Your task to perform on an android device: open app "Adobe Acrobat Reader: Edit PDF" (install if not already installed) and enter user name: "arthritis@inbox.com" and password: "scythes" Image 0: 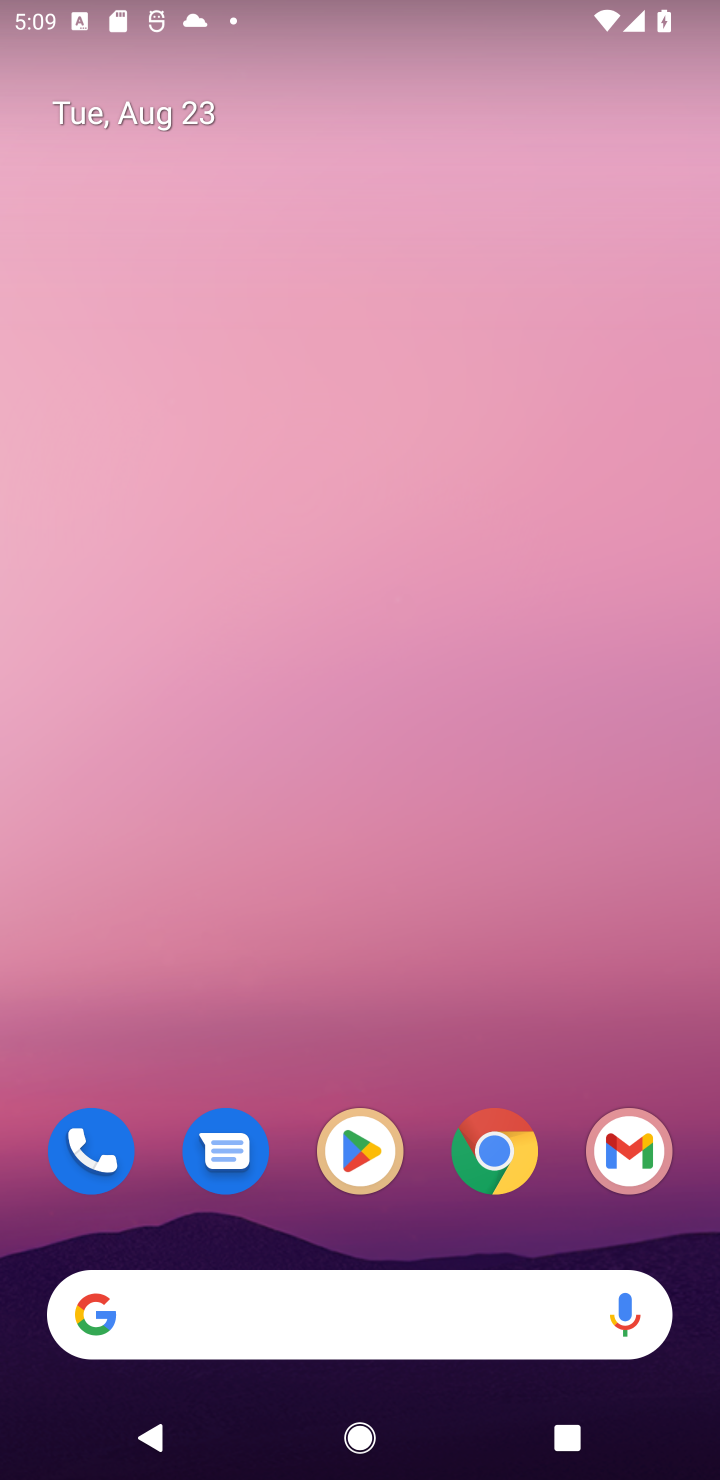
Step 0: click (357, 1149)
Your task to perform on an android device: open app "Adobe Acrobat Reader: Edit PDF" (install if not already installed) and enter user name: "arthritis@inbox.com" and password: "scythes" Image 1: 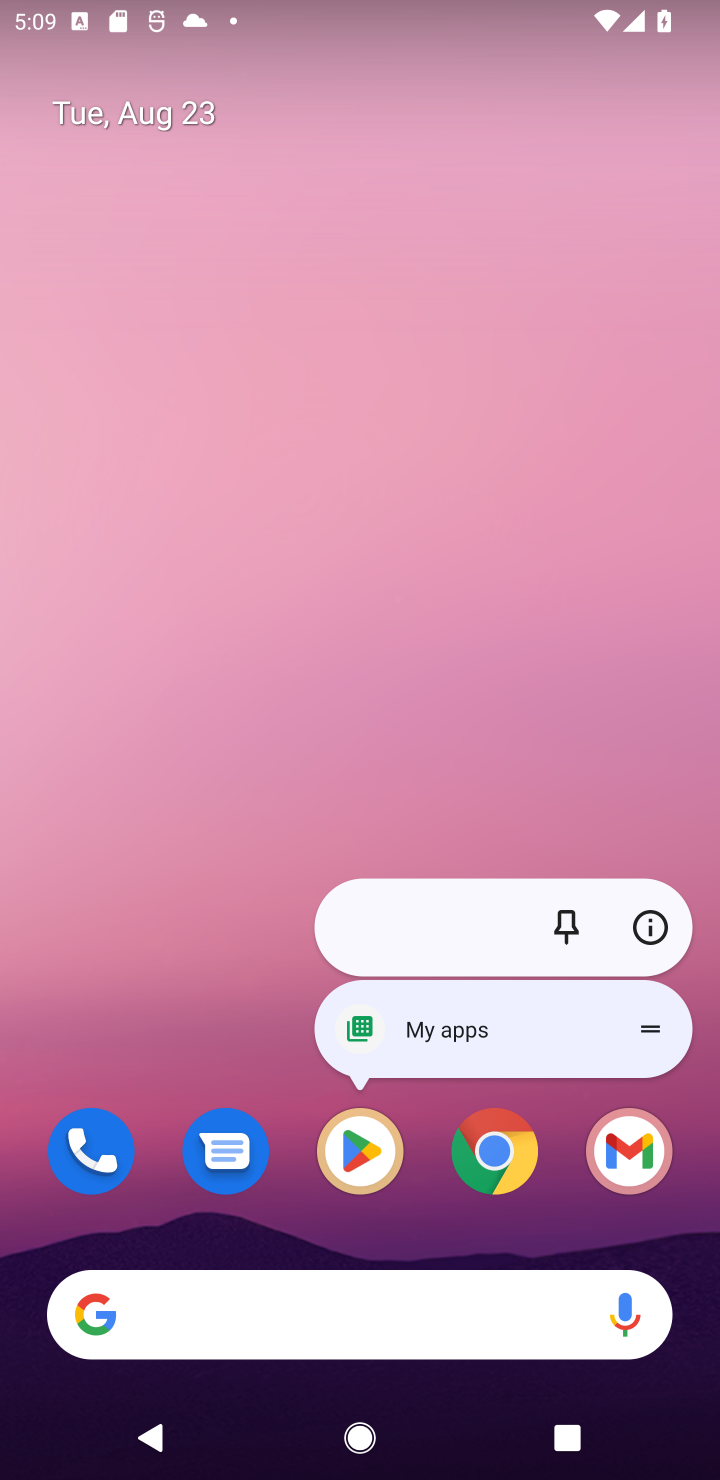
Step 1: click (357, 1155)
Your task to perform on an android device: open app "Adobe Acrobat Reader: Edit PDF" (install if not already installed) and enter user name: "arthritis@inbox.com" and password: "scythes" Image 2: 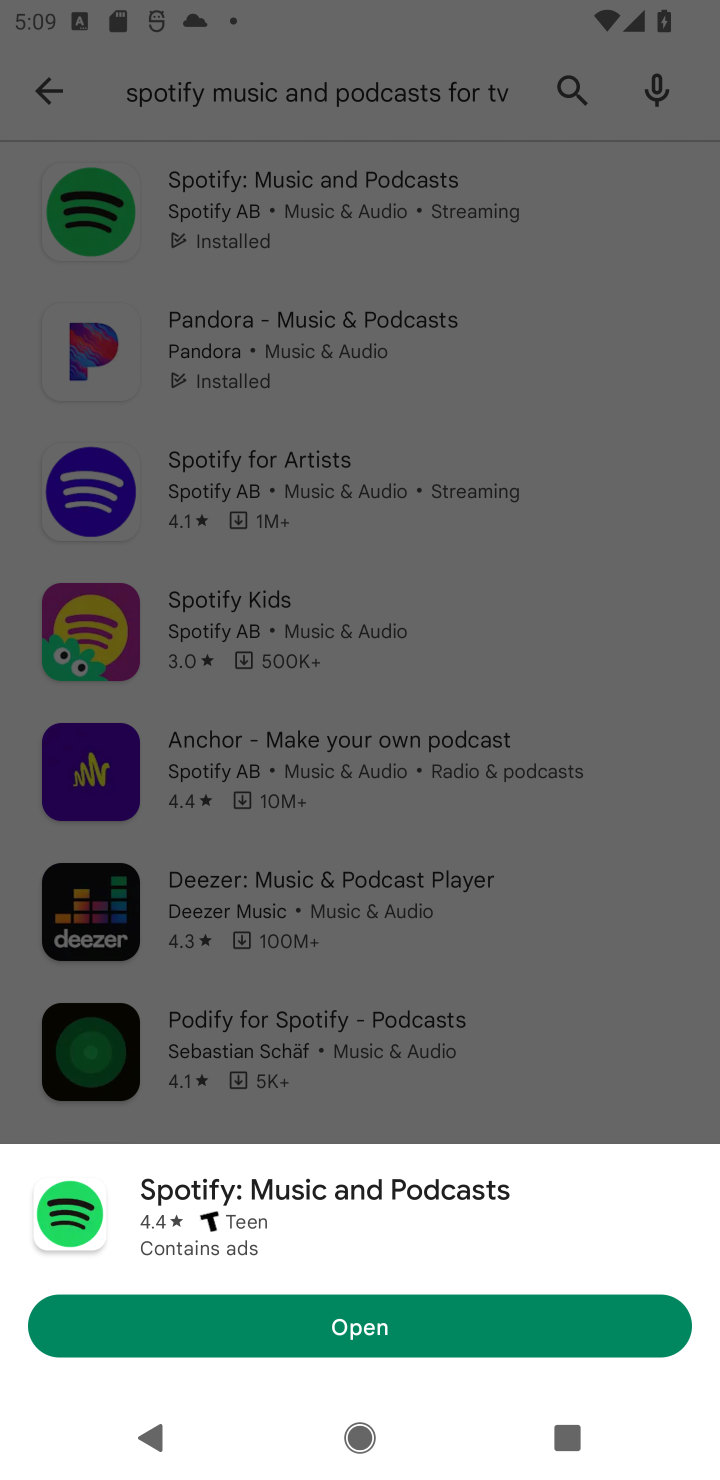
Step 2: click (578, 87)
Your task to perform on an android device: open app "Adobe Acrobat Reader: Edit PDF" (install if not already installed) and enter user name: "arthritis@inbox.com" and password: "scythes" Image 3: 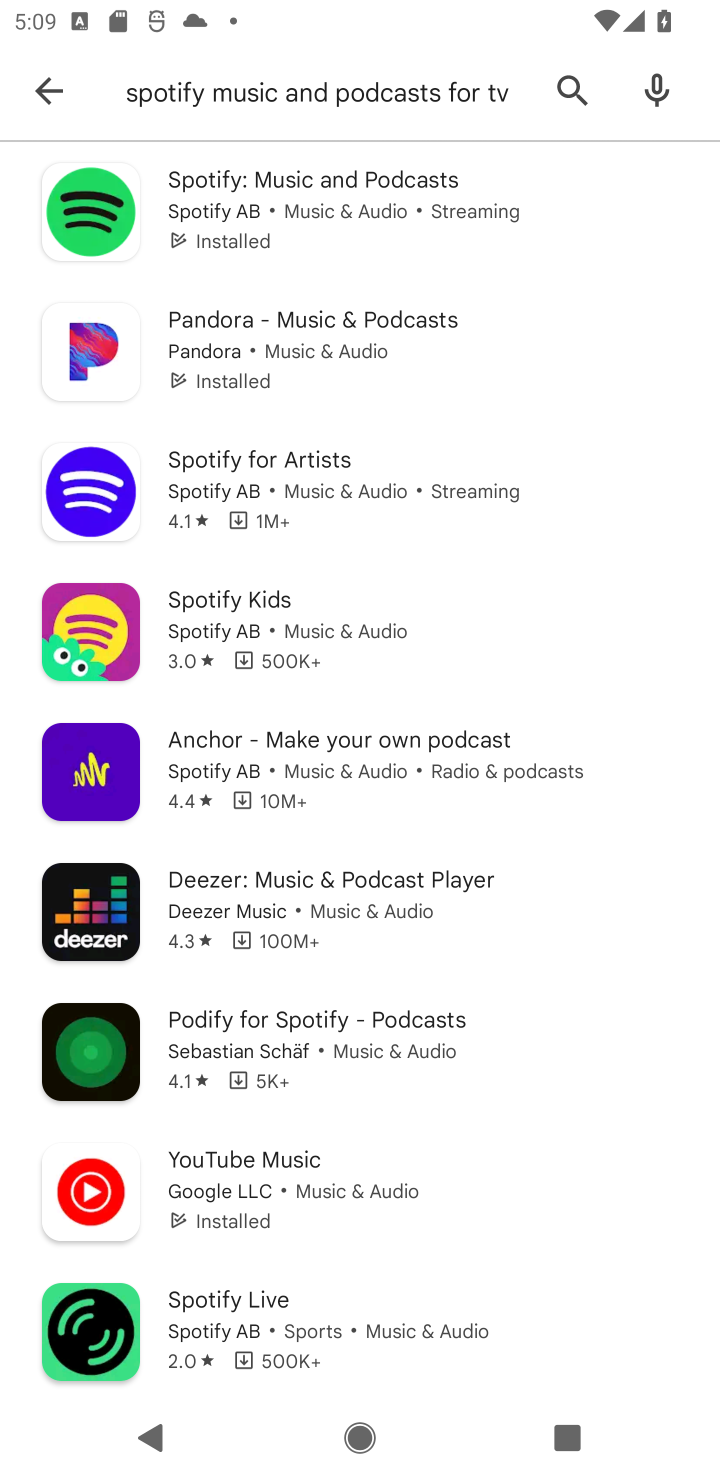
Step 3: click (578, 90)
Your task to perform on an android device: open app "Adobe Acrobat Reader: Edit PDF" (install if not already installed) and enter user name: "arthritis@inbox.com" and password: "scythes" Image 4: 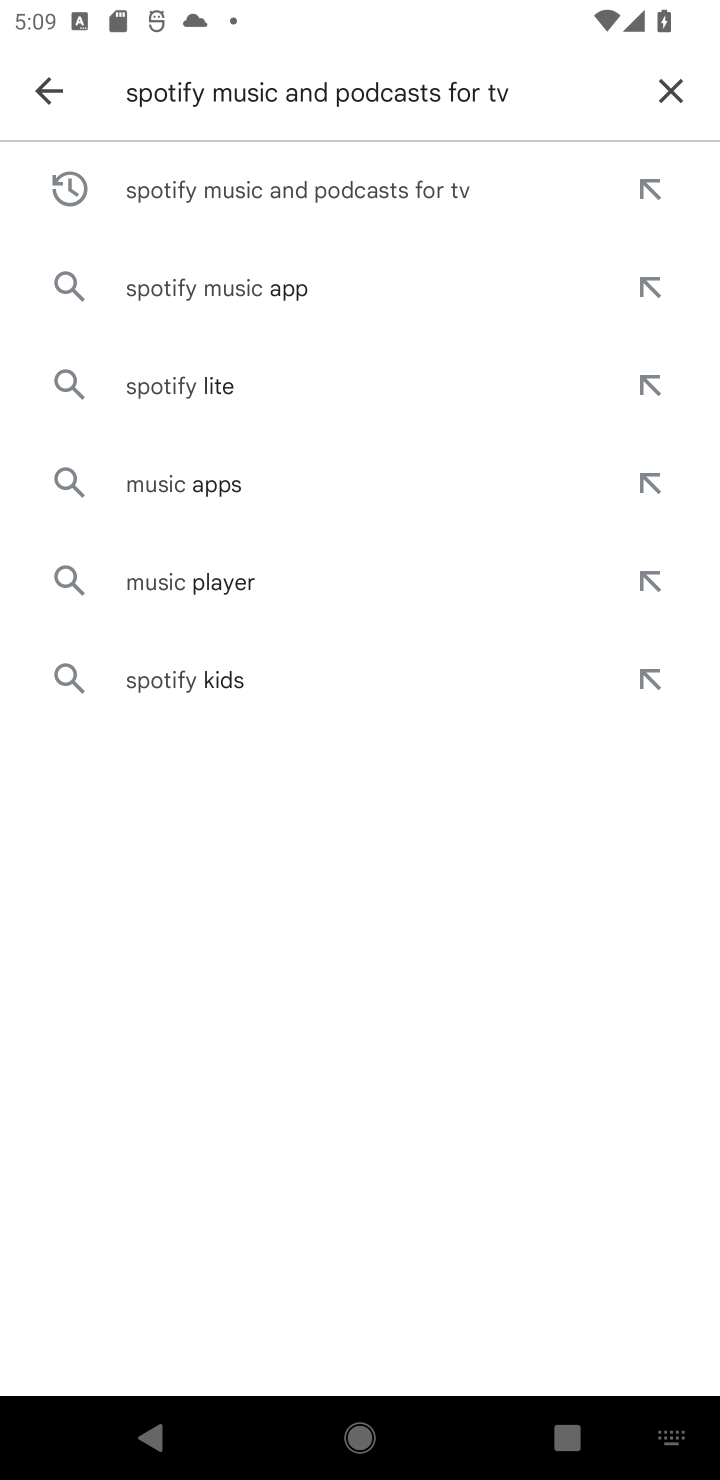
Step 4: click (662, 81)
Your task to perform on an android device: open app "Adobe Acrobat Reader: Edit PDF" (install if not already installed) and enter user name: "arthritis@inbox.com" and password: "scythes" Image 5: 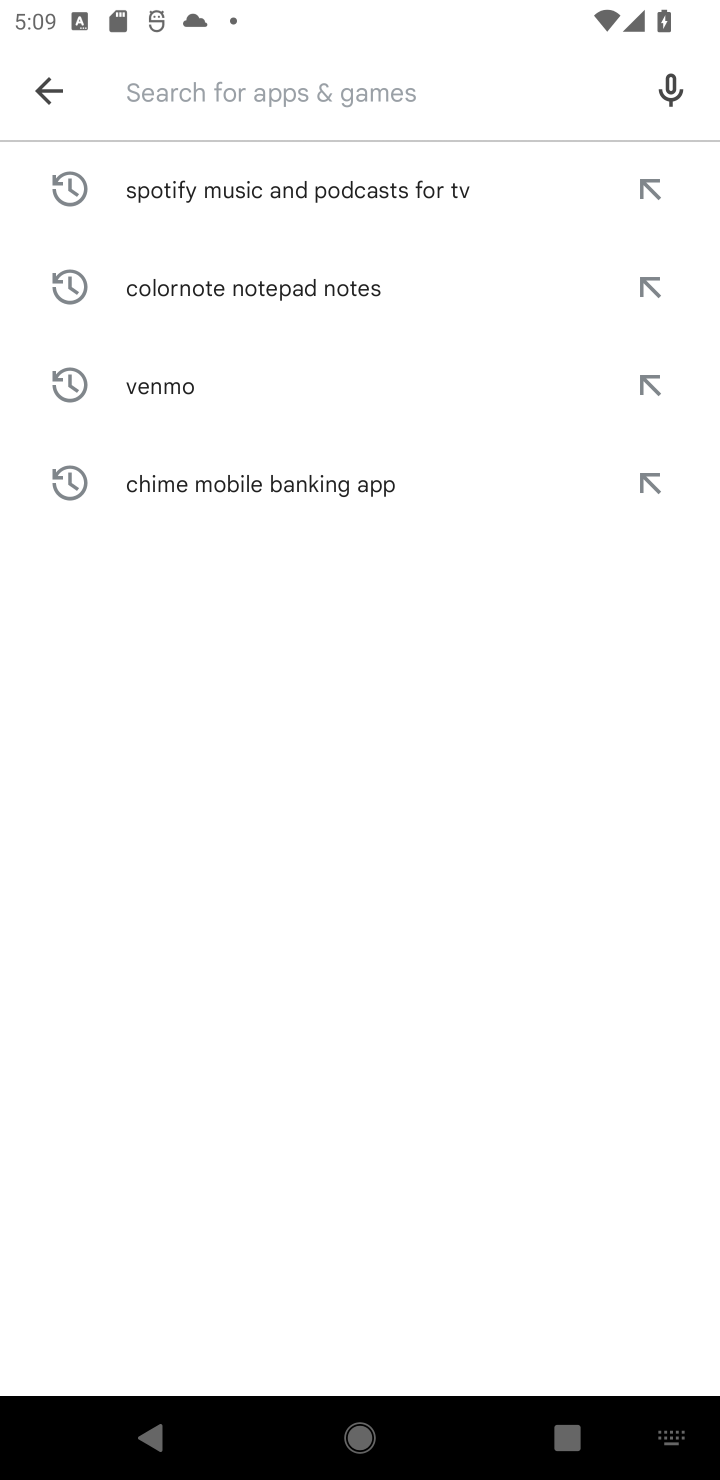
Step 5: type "Adobe Acrobat Reader: Edit PDF"
Your task to perform on an android device: open app "Adobe Acrobat Reader: Edit PDF" (install if not already installed) and enter user name: "arthritis@inbox.com" and password: "scythes" Image 6: 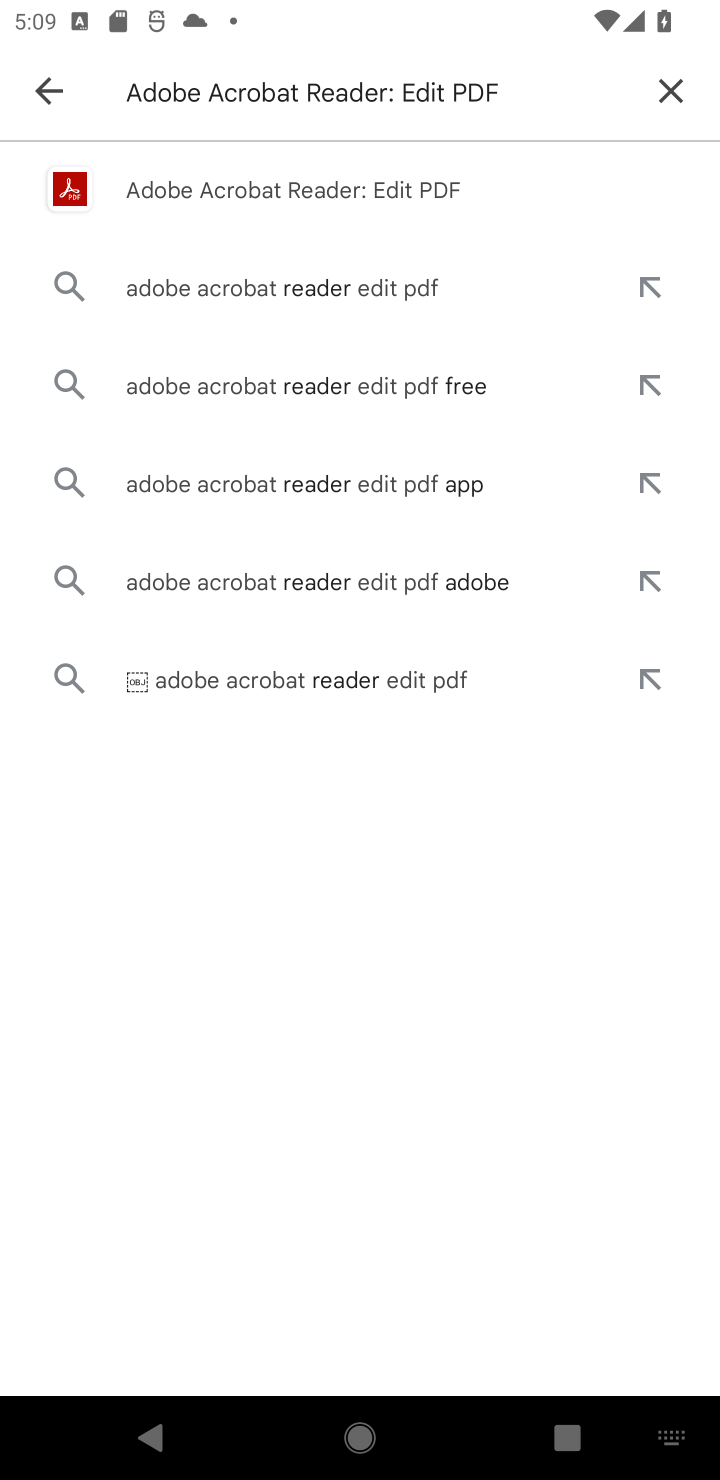
Step 6: click (289, 182)
Your task to perform on an android device: open app "Adobe Acrobat Reader: Edit PDF" (install if not already installed) and enter user name: "arthritis@inbox.com" and password: "scythes" Image 7: 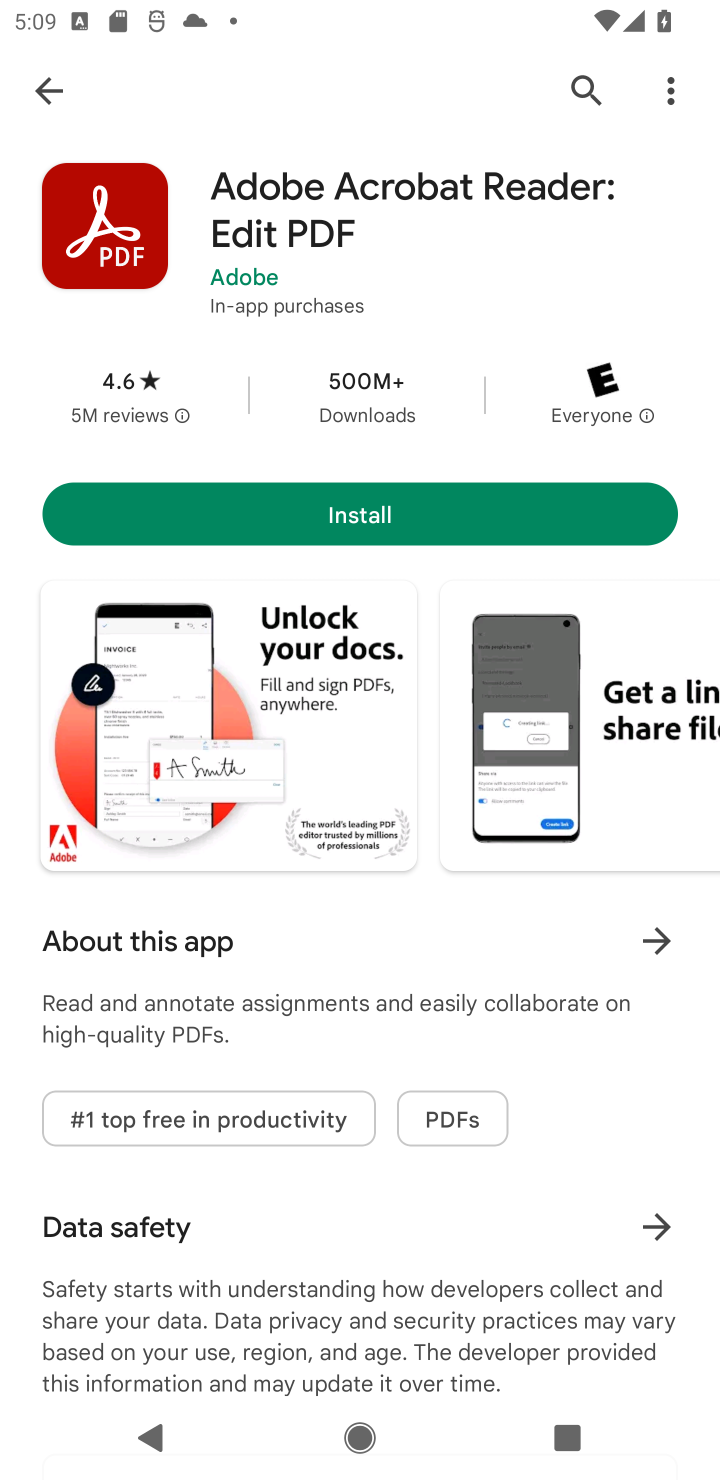
Step 7: click (391, 518)
Your task to perform on an android device: open app "Adobe Acrobat Reader: Edit PDF" (install if not already installed) and enter user name: "arthritis@inbox.com" and password: "scythes" Image 8: 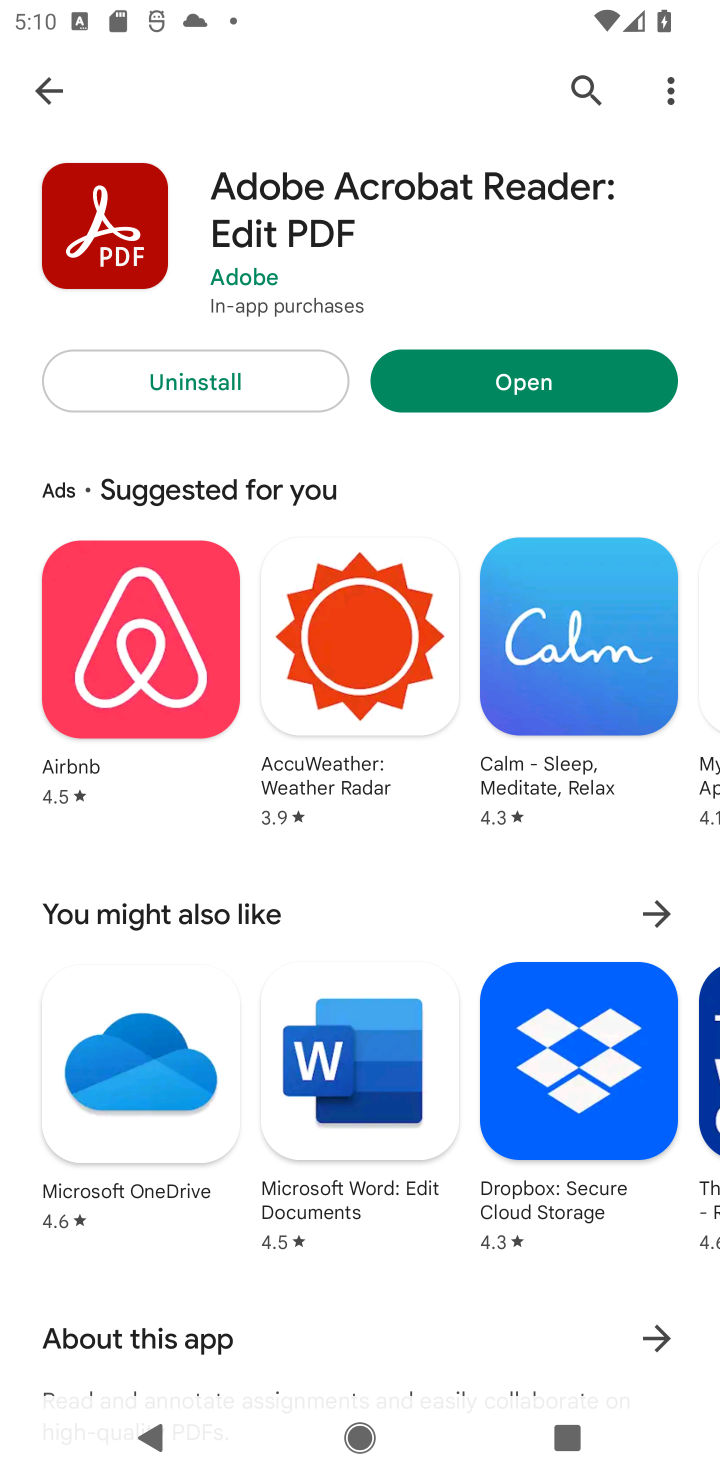
Step 8: click (578, 387)
Your task to perform on an android device: open app "Adobe Acrobat Reader: Edit PDF" (install if not already installed) and enter user name: "arthritis@inbox.com" and password: "scythes" Image 9: 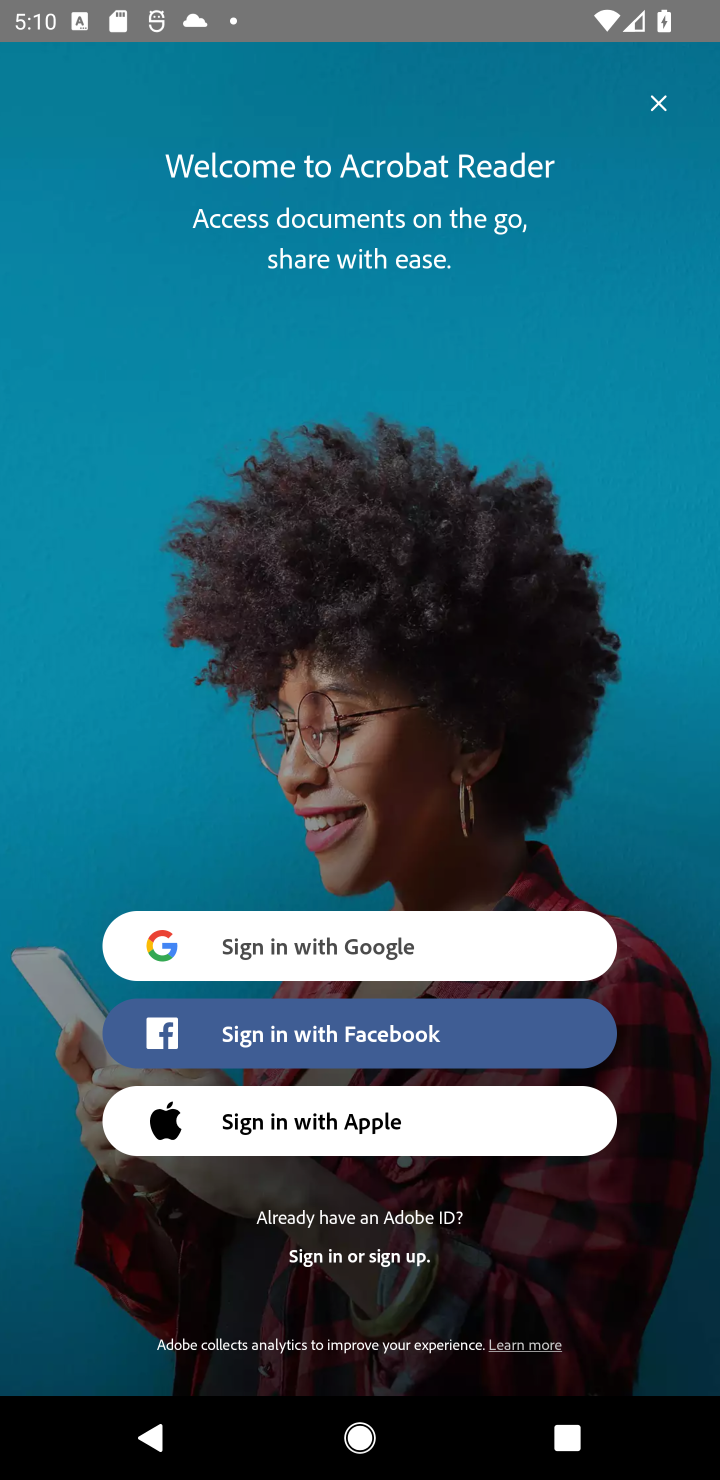
Step 9: click (334, 1256)
Your task to perform on an android device: open app "Adobe Acrobat Reader: Edit PDF" (install if not already installed) and enter user name: "arthritis@inbox.com" and password: "scythes" Image 10: 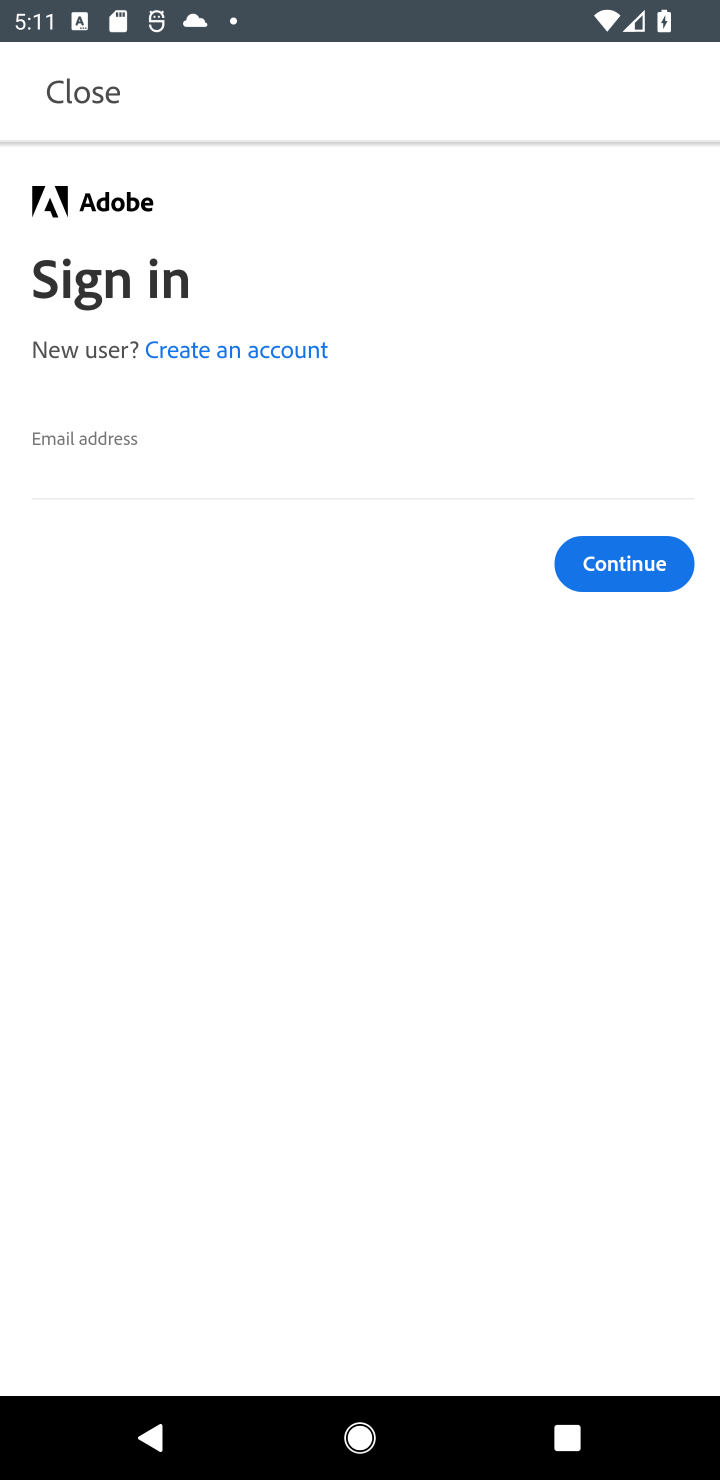
Step 10: type "arthritis@inbox.com"
Your task to perform on an android device: open app "Adobe Acrobat Reader: Edit PDF" (install if not already installed) and enter user name: "arthritis@inbox.com" and password: "scythes" Image 11: 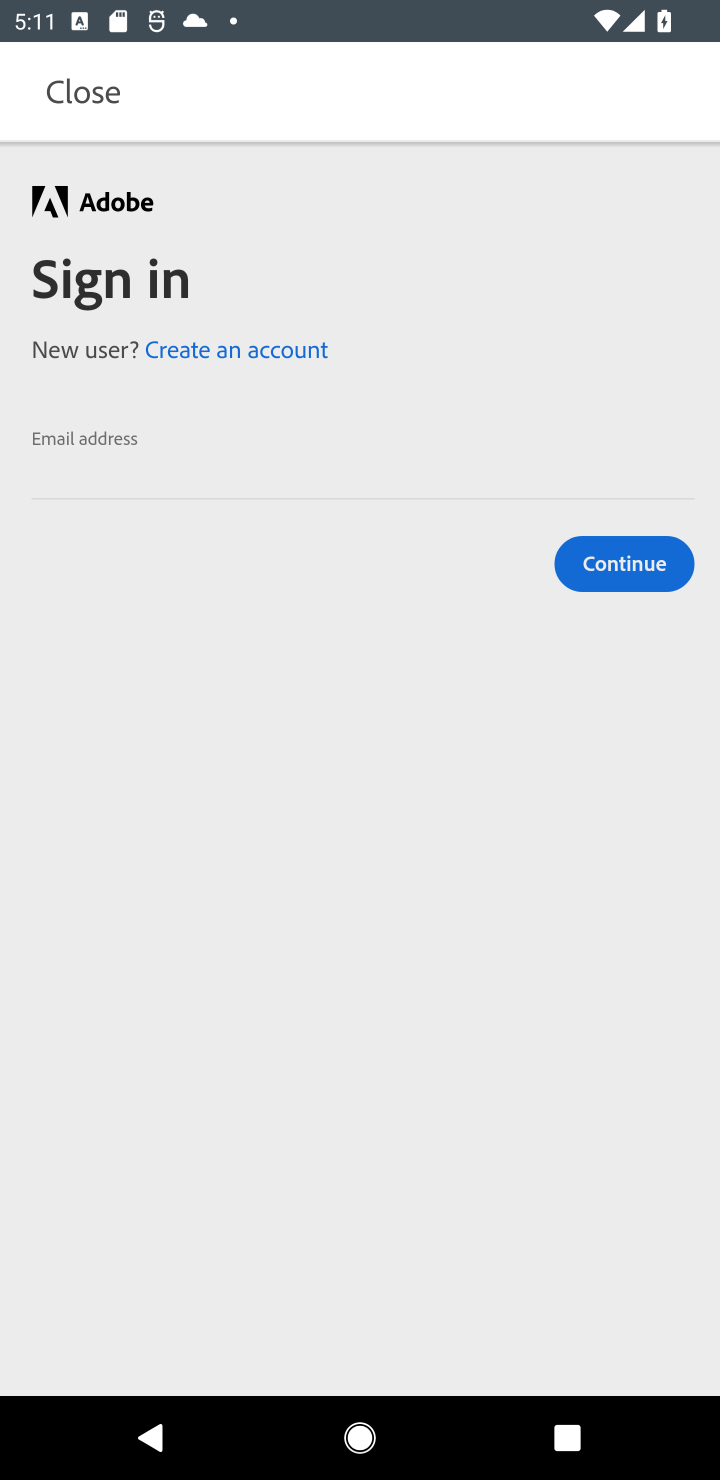
Step 11: click (79, 461)
Your task to perform on an android device: open app "Adobe Acrobat Reader: Edit PDF" (install if not already installed) and enter user name: "arthritis@inbox.com" and password: "scythes" Image 12: 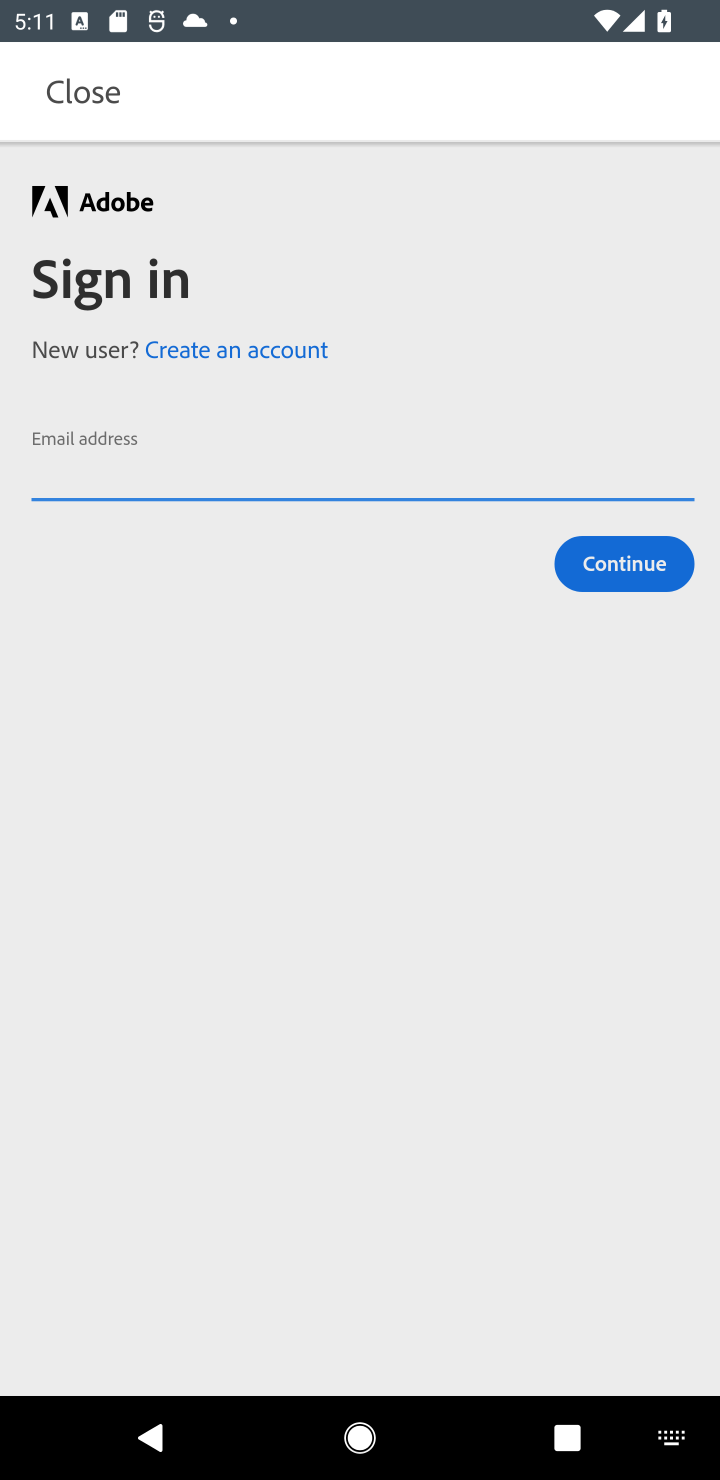
Step 12: type "arthritis@inbox.com"
Your task to perform on an android device: open app "Adobe Acrobat Reader: Edit PDF" (install if not already installed) and enter user name: "arthritis@inbox.com" and password: "scythes" Image 13: 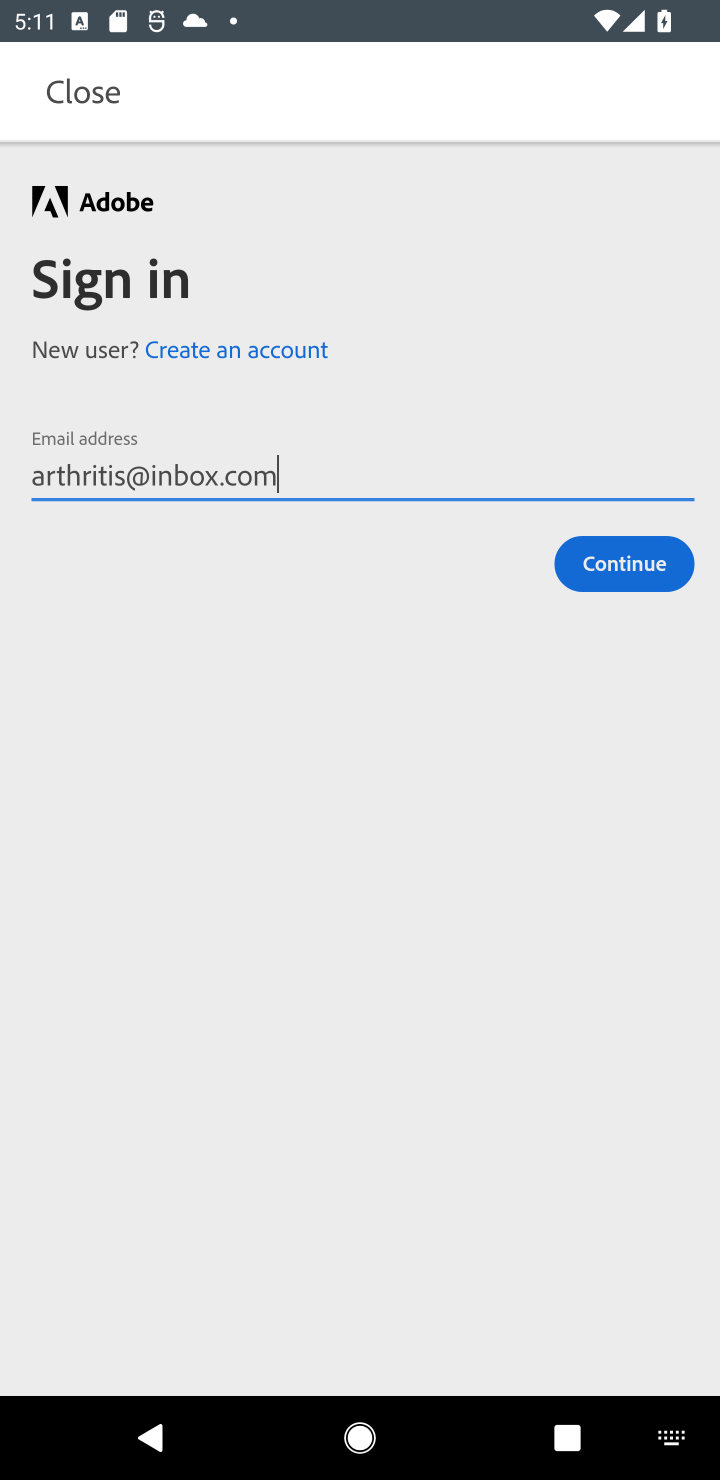
Step 13: click (645, 563)
Your task to perform on an android device: open app "Adobe Acrobat Reader: Edit PDF" (install if not already installed) and enter user name: "arthritis@inbox.com" and password: "scythes" Image 14: 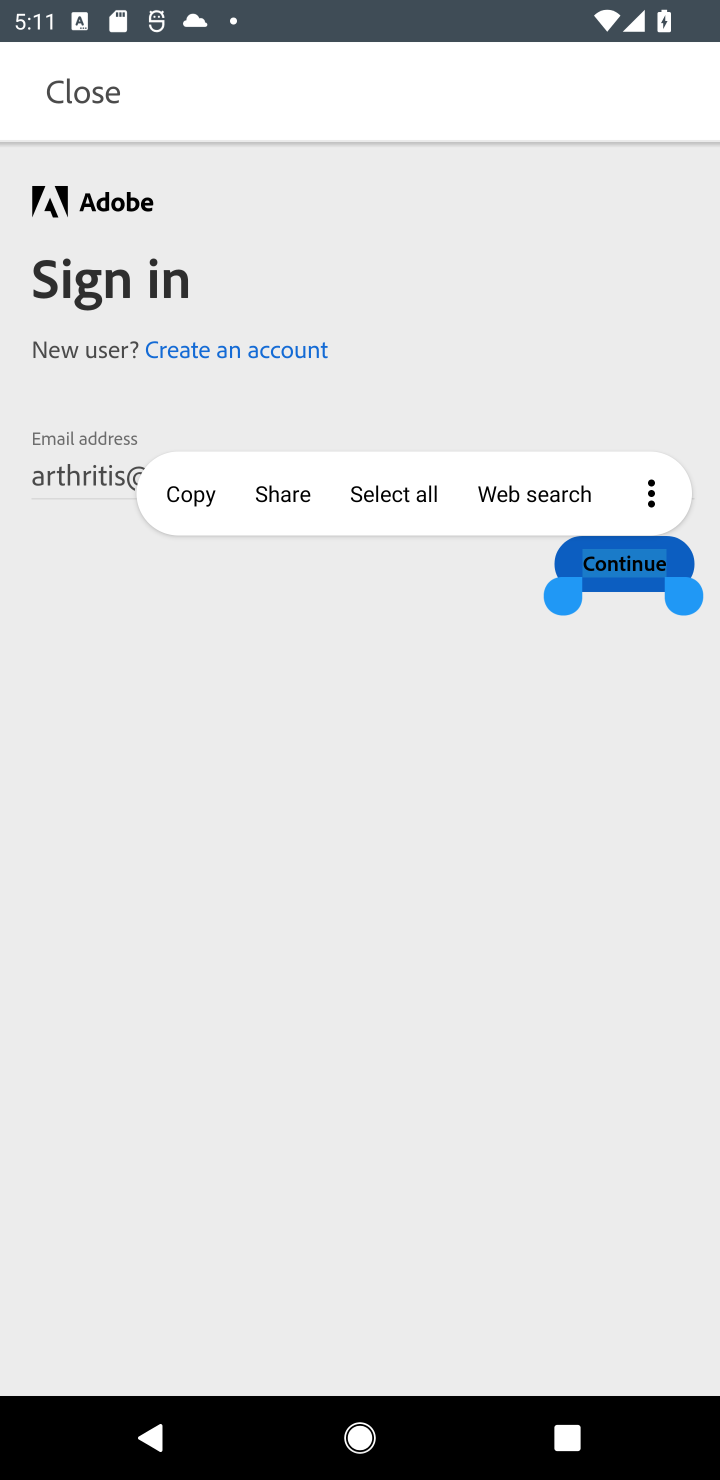
Step 14: click (285, 788)
Your task to perform on an android device: open app "Adobe Acrobat Reader: Edit PDF" (install if not already installed) and enter user name: "arthritis@inbox.com" and password: "scythes" Image 15: 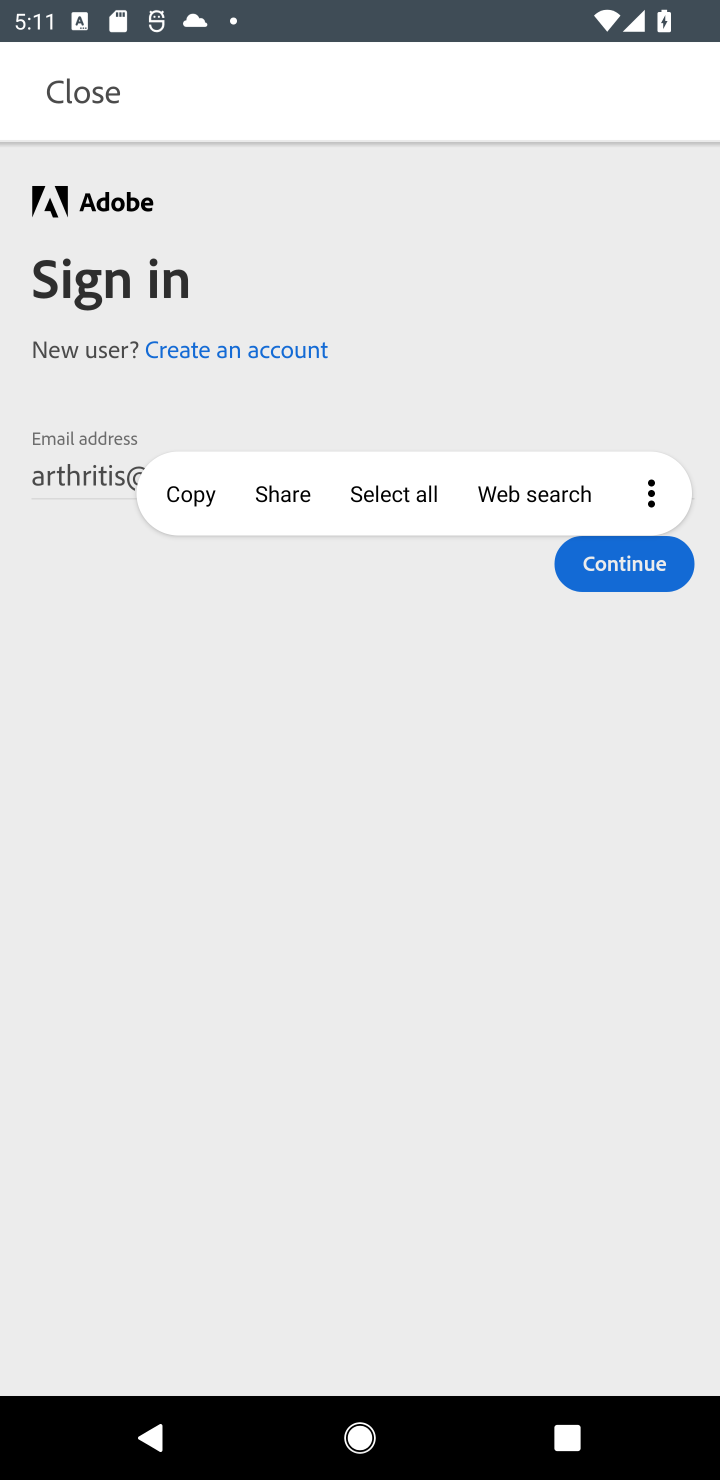
Step 15: click (617, 578)
Your task to perform on an android device: open app "Adobe Acrobat Reader: Edit PDF" (install if not already installed) and enter user name: "arthritis@inbox.com" and password: "scythes" Image 16: 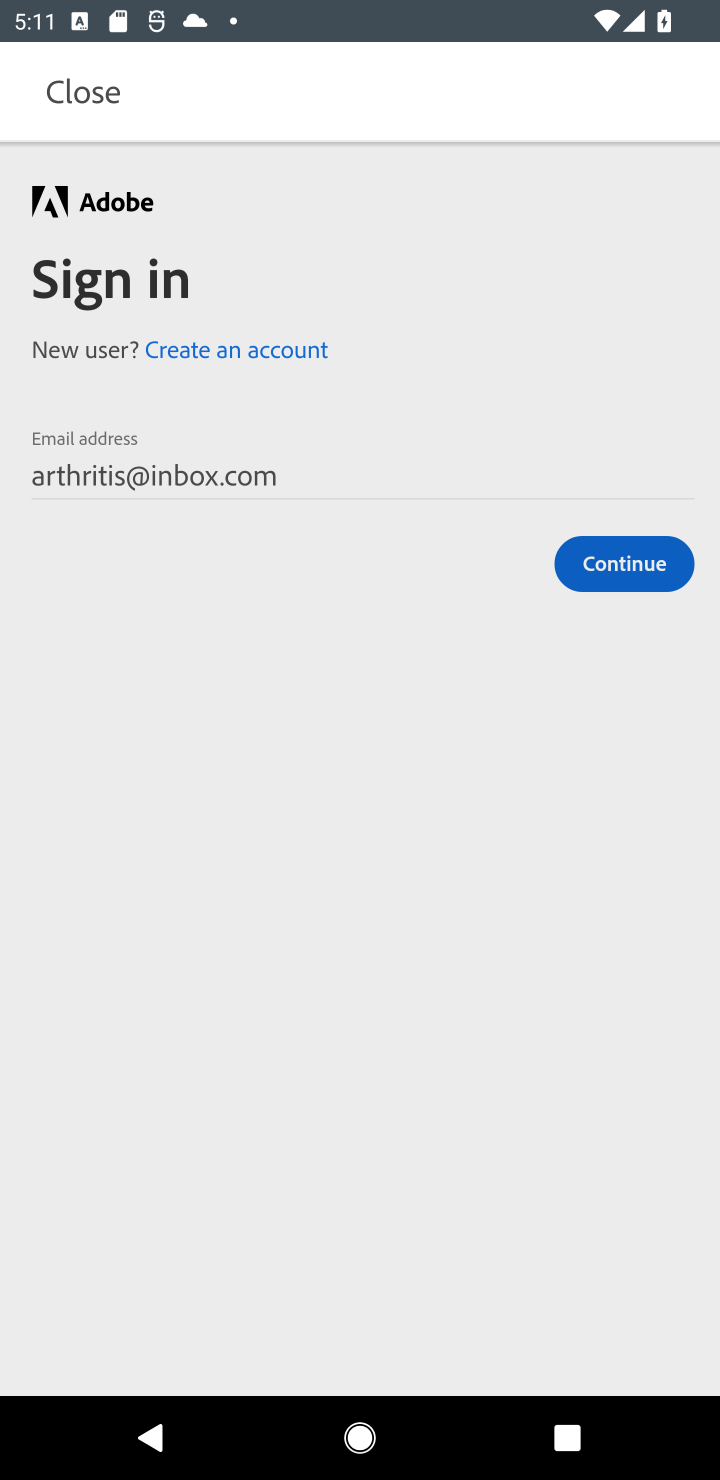
Step 16: click (614, 552)
Your task to perform on an android device: open app "Adobe Acrobat Reader: Edit PDF" (install if not already installed) and enter user name: "arthritis@inbox.com" and password: "scythes" Image 17: 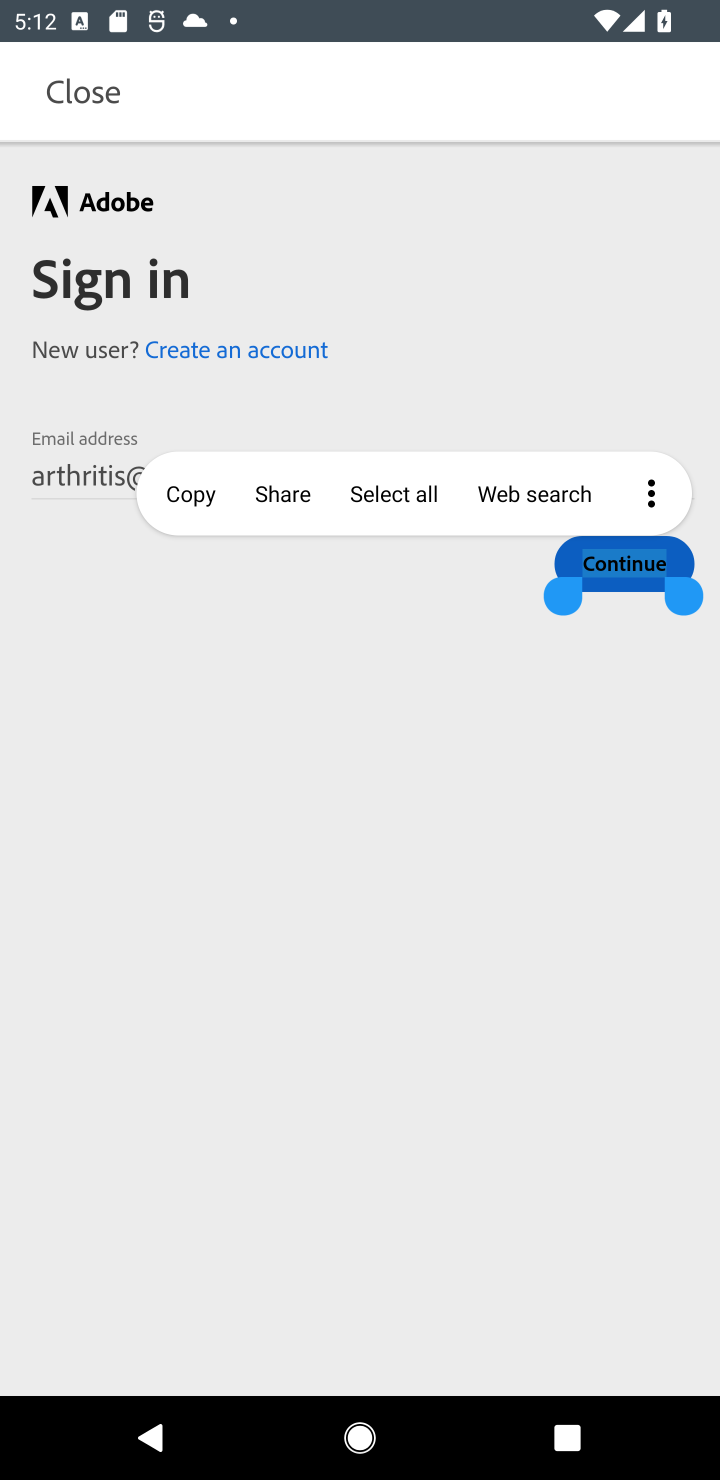
Step 17: click (642, 561)
Your task to perform on an android device: open app "Adobe Acrobat Reader: Edit PDF" (install if not already installed) and enter user name: "arthritis@inbox.com" and password: "scythes" Image 18: 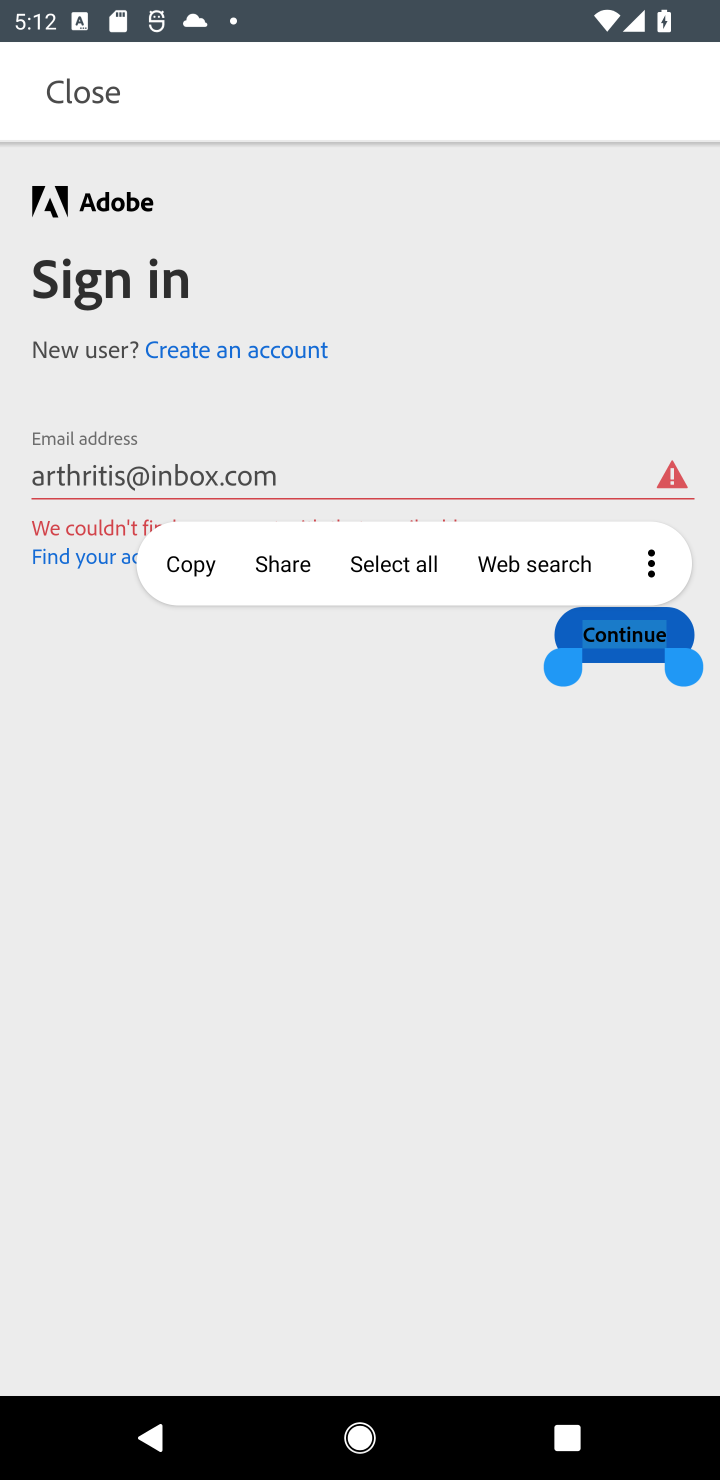
Step 18: task complete